Your task to perform on an android device: Open Yahoo.com Image 0: 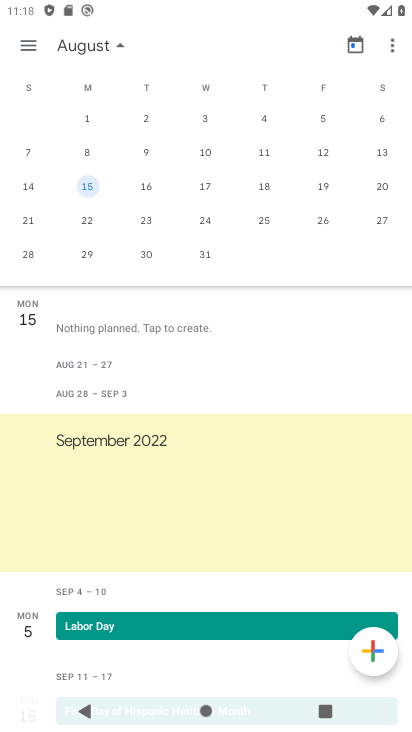
Step 0: press home button
Your task to perform on an android device: Open Yahoo.com Image 1: 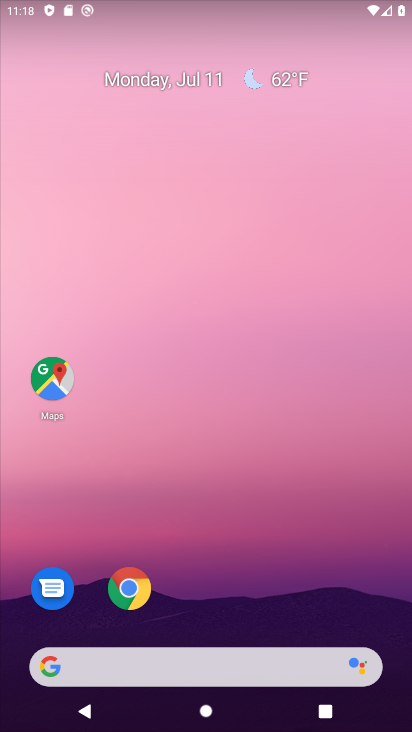
Step 1: click (132, 590)
Your task to perform on an android device: Open Yahoo.com Image 2: 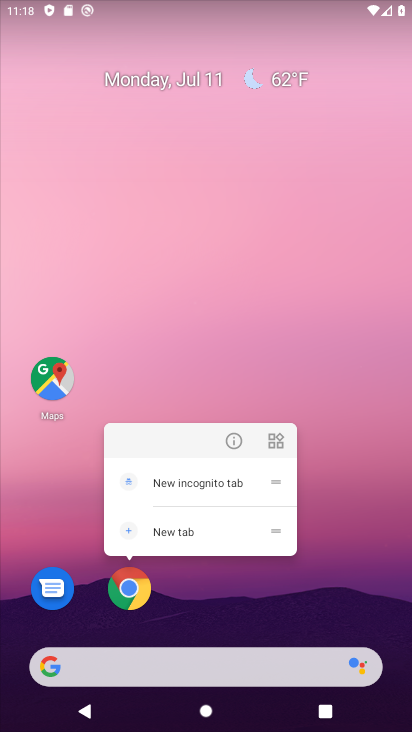
Step 2: click (132, 590)
Your task to perform on an android device: Open Yahoo.com Image 3: 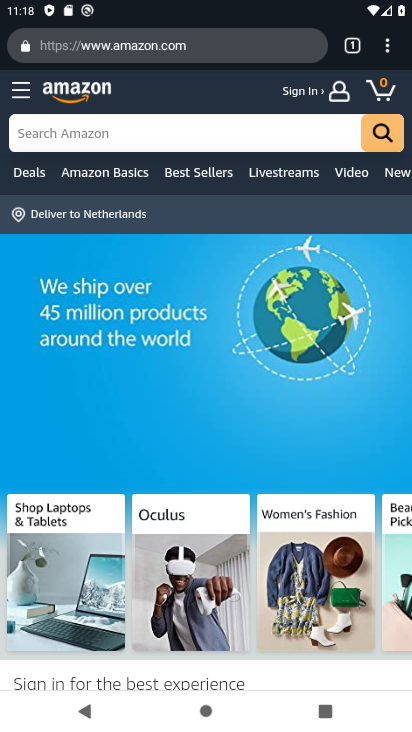
Step 3: press back button
Your task to perform on an android device: Open Yahoo.com Image 4: 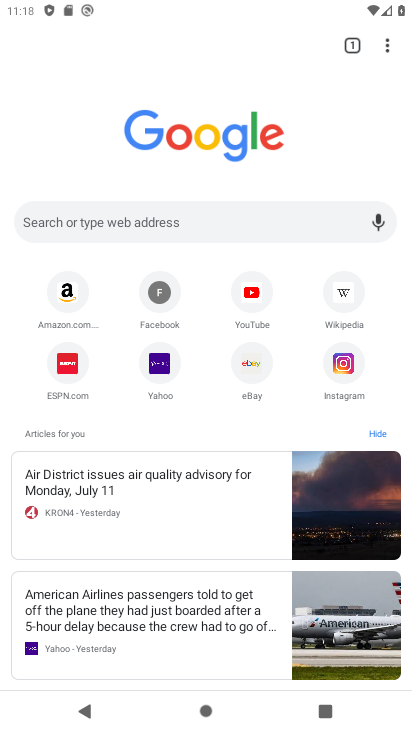
Step 4: click (152, 362)
Your task to perform on an android device: Open Yahoo.com Image 5: 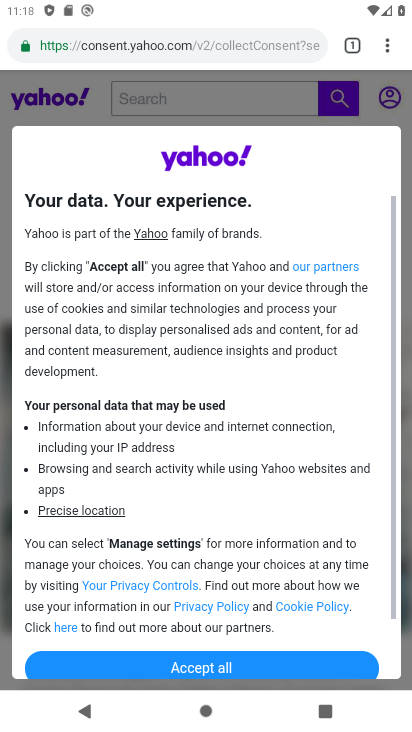
Step 5: task complete